Your task to perform on an android device: What is the recent news? Image 0: 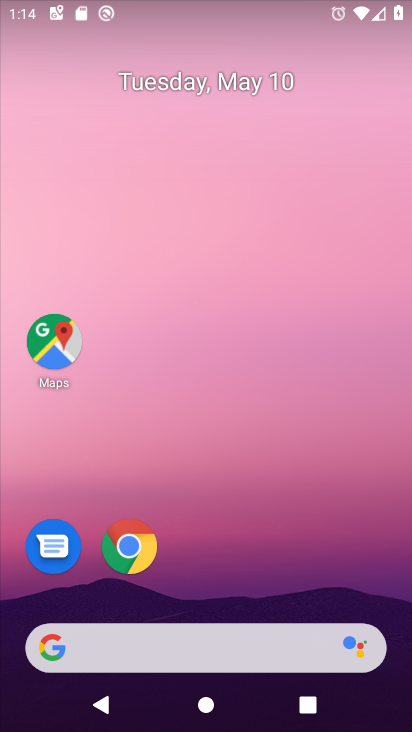
Step 0: click (149, 538)
Your task to perform on an android device: What is the recent news? Image 1: 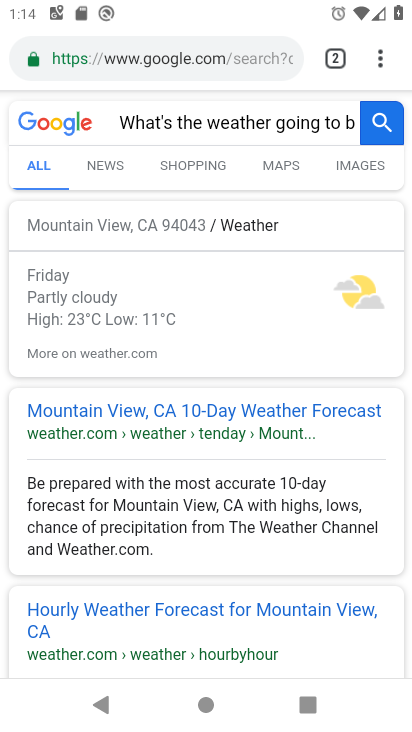
Step 1: click (266, 55)
Your task to perform on an android device: What is the recent news? Image 2: 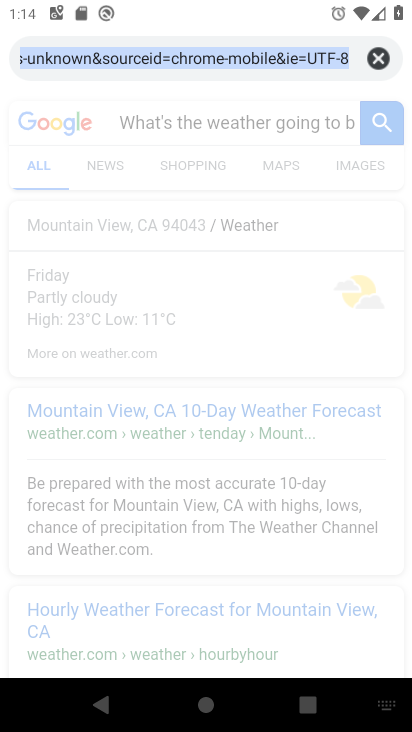
Step 2: click (383, 53)
Your task to perform on an android device: What is the recent news? Image 3: 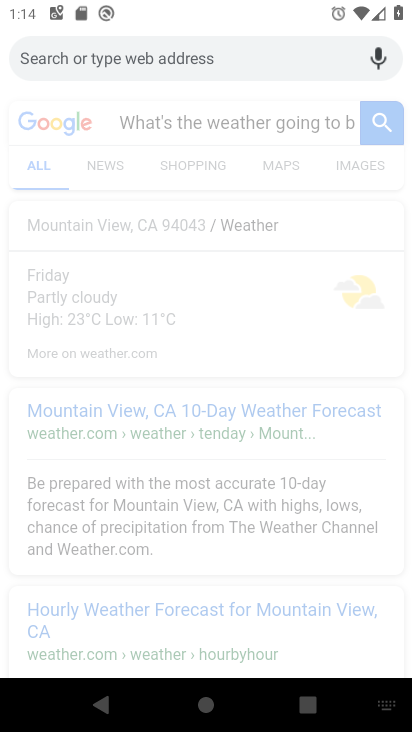
Step 3: type "What is the recent news?"
Your task to perform on an android device: What is the recent news? Image 4: 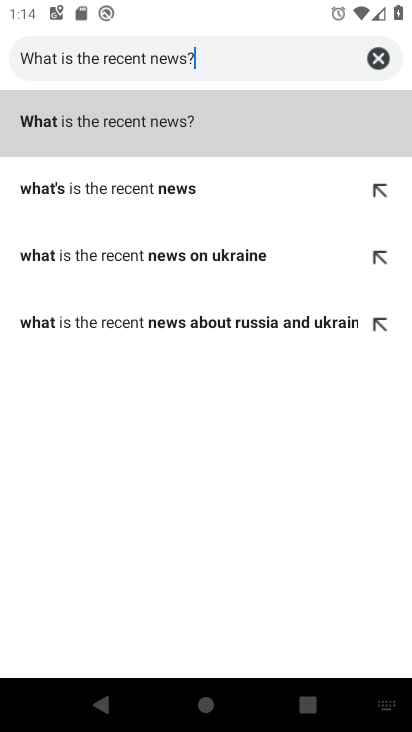
Step 4: click (107, 111)
Your task to perform on an android device: What is the recent news? Image 5: 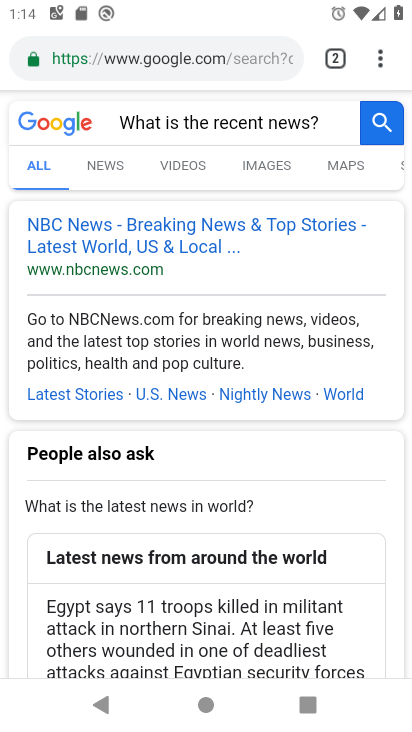
Step 5: task complete